Your task to perform on an android device: Search for the best running shoes on Nike. Image 0: 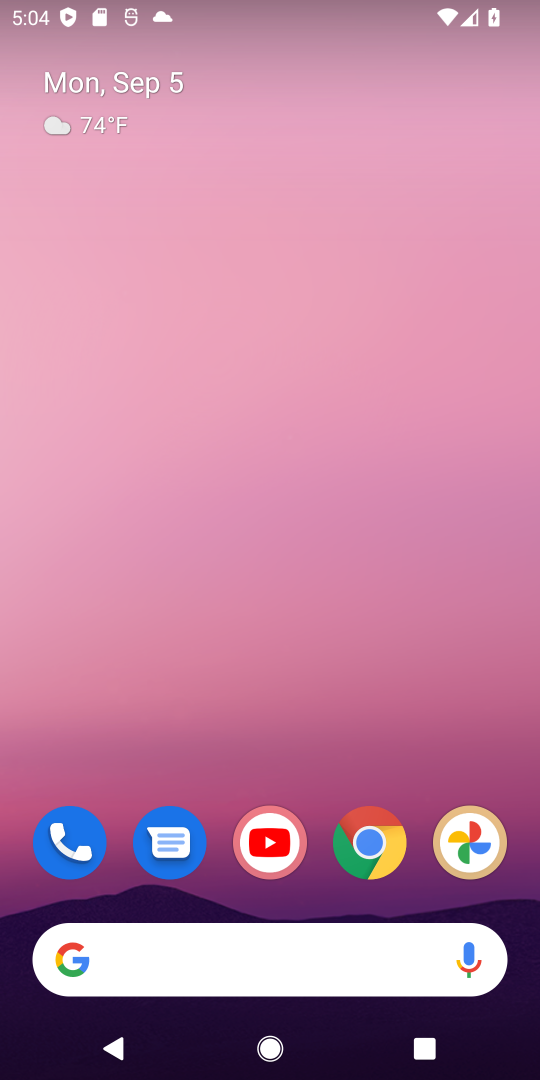
Step 0: click (372, 842)
Your task to perform on an android device: Search for the best running shoes on Nike. Image 1: 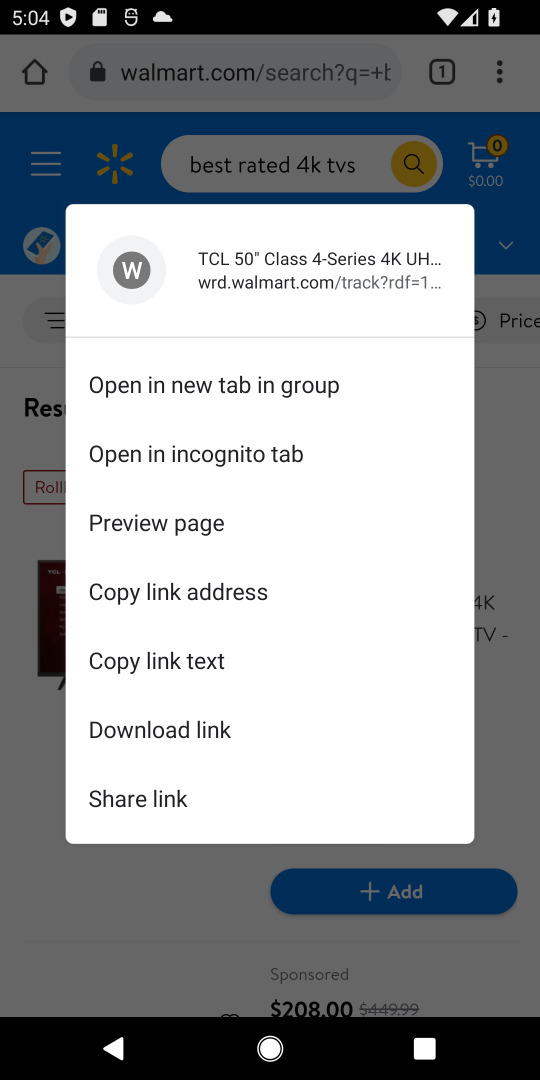
Step 1: click (315, 172)
Your task to perform on an android device: Search for the best running shoes on Nike. Image 2: 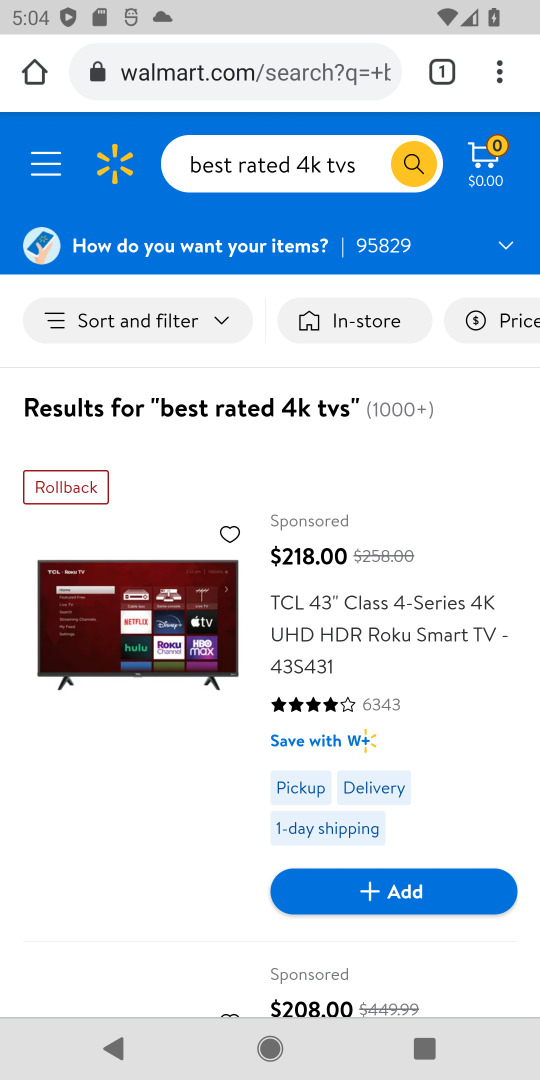
Step 2: click (332, 90)
Your task to perform on an android device: Search for the best running shoes on Nike. Image 3: 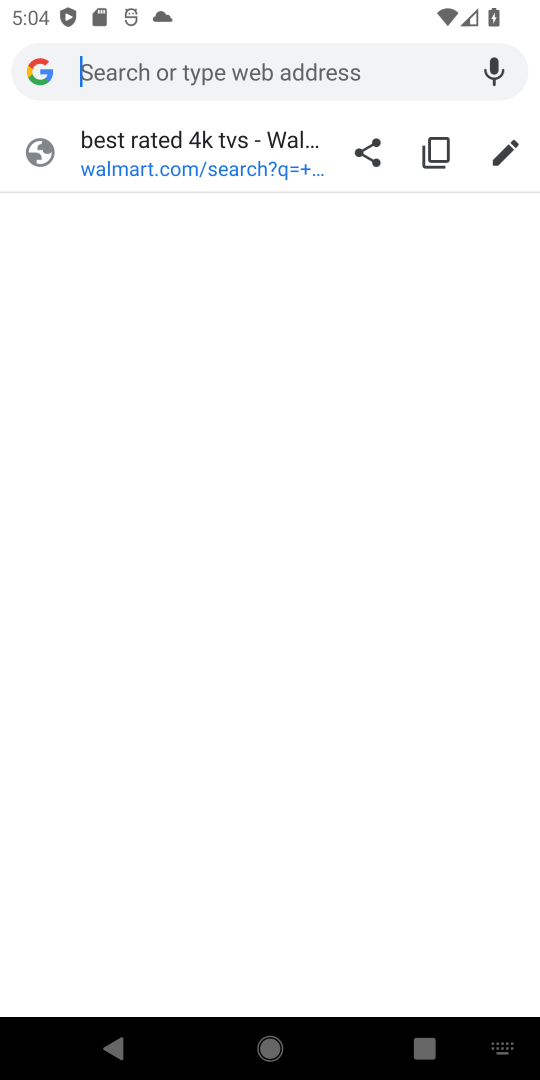
Step 3: type "Nike"
Your task to perform on an android device: Search for the best running shoes on Nike. Image 4: 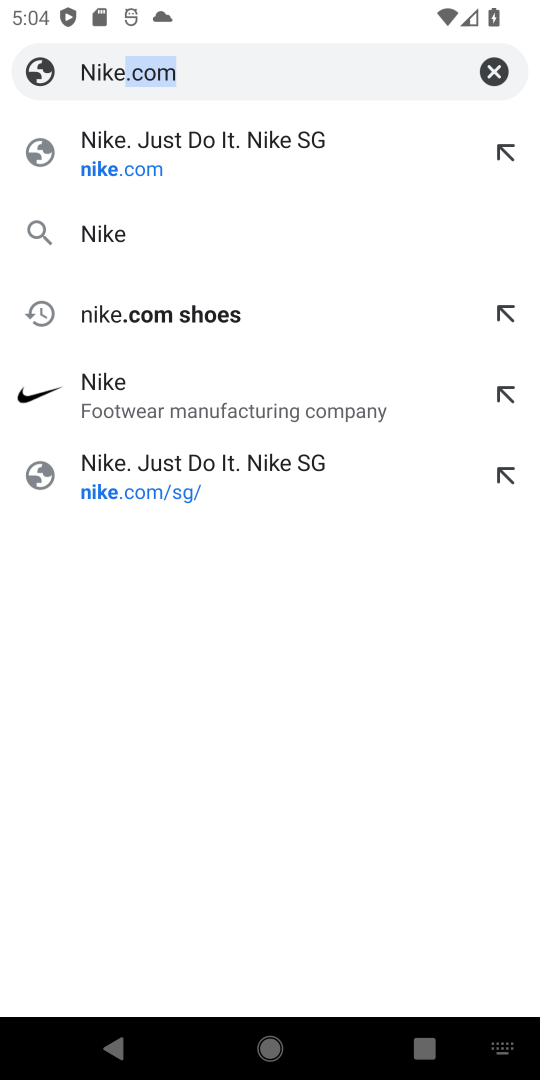
Step 4: click (117, 237)
Your task to perform on an android device: Search for the best running shoes on Nike. Image 5: 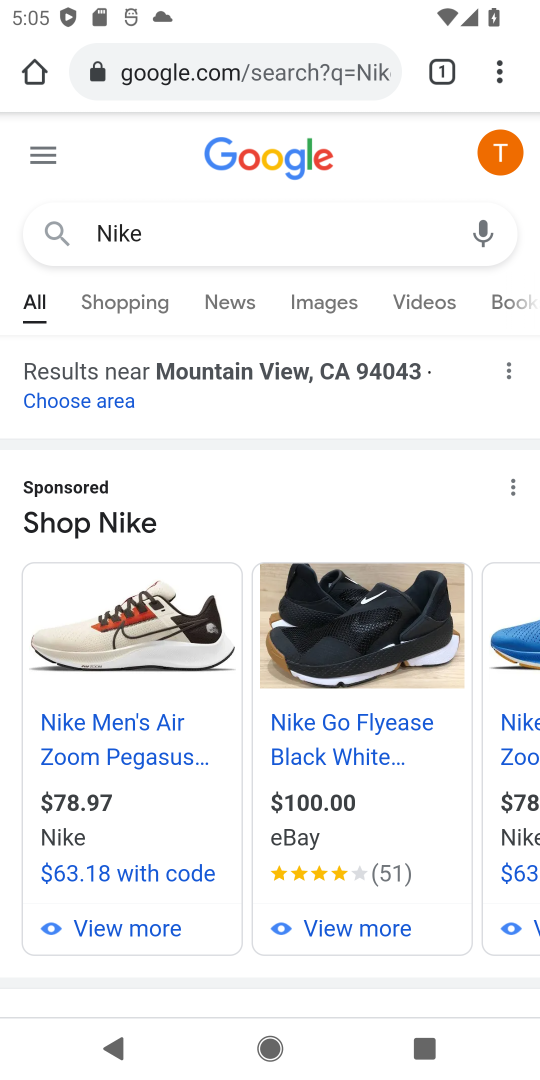
Step 5: drag from (304, 455) to (447, 194)
Your task to perform on an android device: Search for the best running shoes on Nike. Image 6: 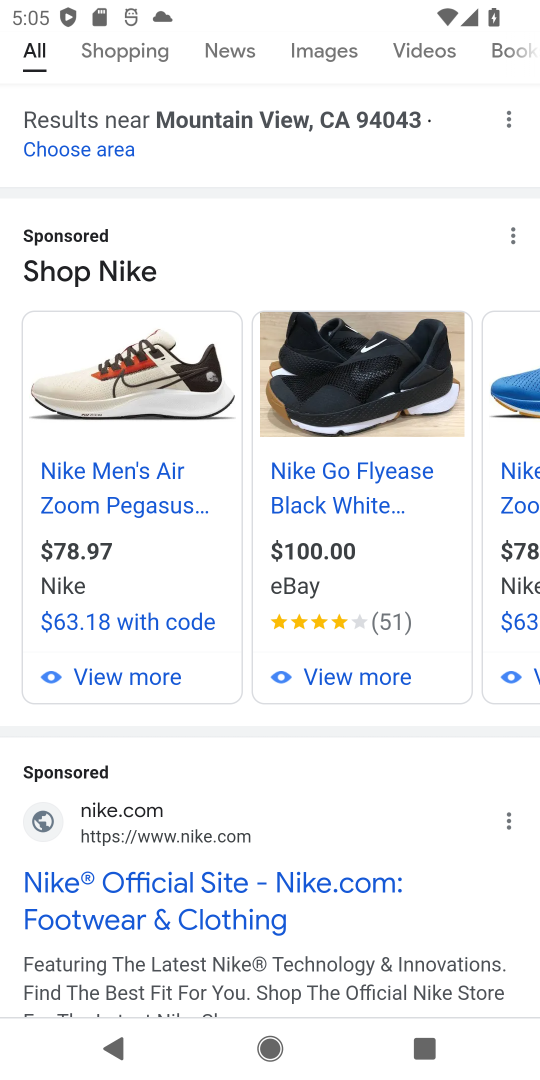
Step 6: drag from (242, 793) to (413, 214)
Your task to perform on an android device: Search for the best running shoes on Nike. Image 7: 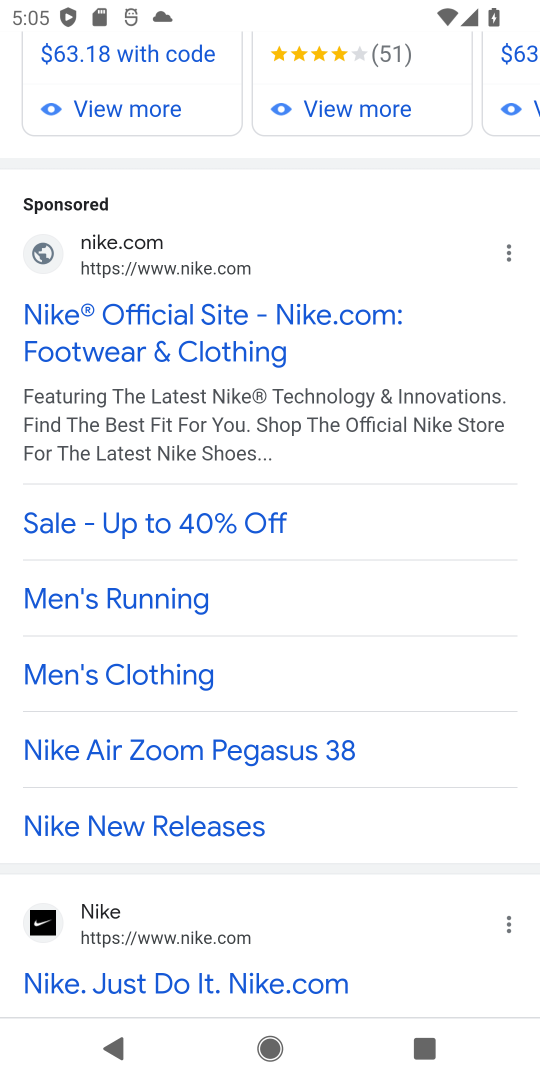
Step 7: drag from (246, 943) to (441, 551)
Your task to perform on an android device: Search for the best running shoes on Nike. Image 8: 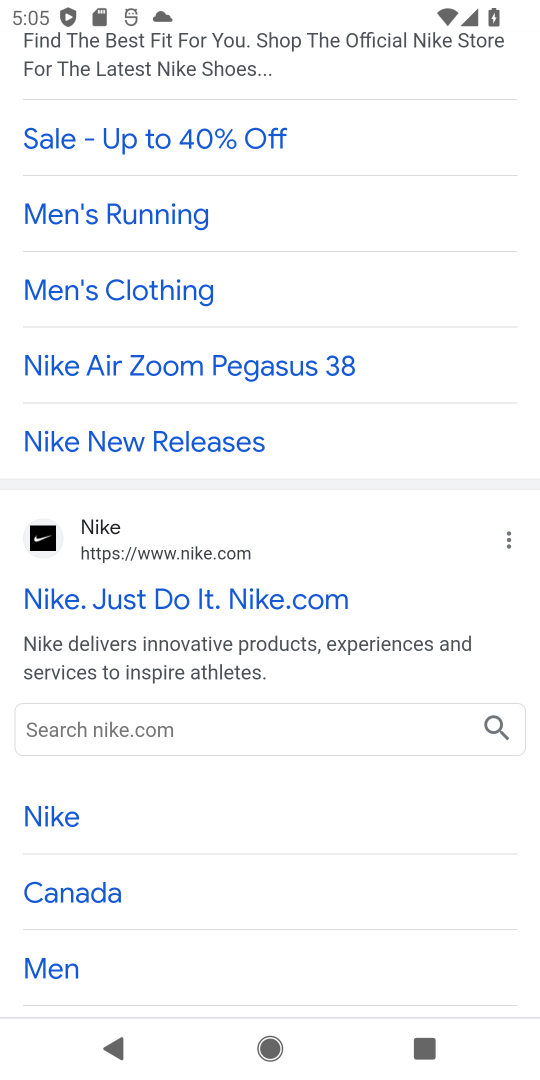
Step 8: click (154, 609)
Your task to perform on an android device: Search for the best running shoes on Nike. Image 9: 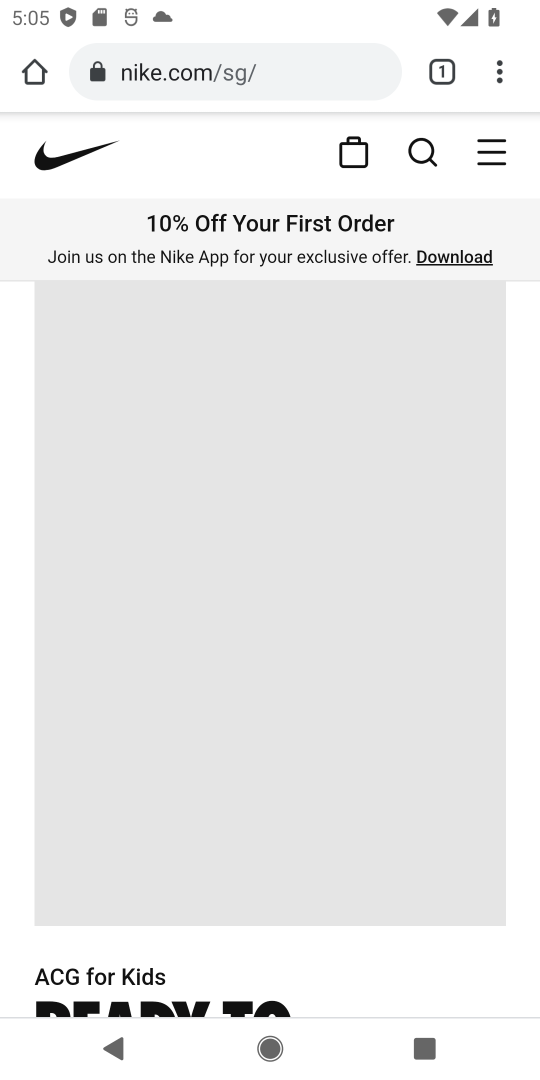
Step 9: click (422, 148)
Your task to perform on an android device: Search for the best running shoes on Nike. Image 10: 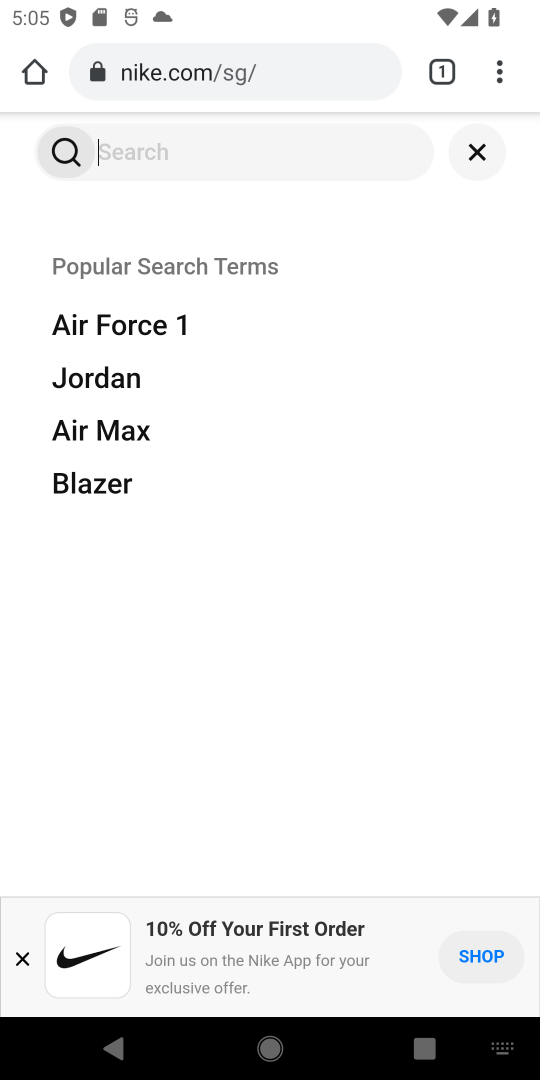
Step 10: type "best running shoes"
Your task to perform on an android device: Search for the best running shoes on Nike. Image 11: 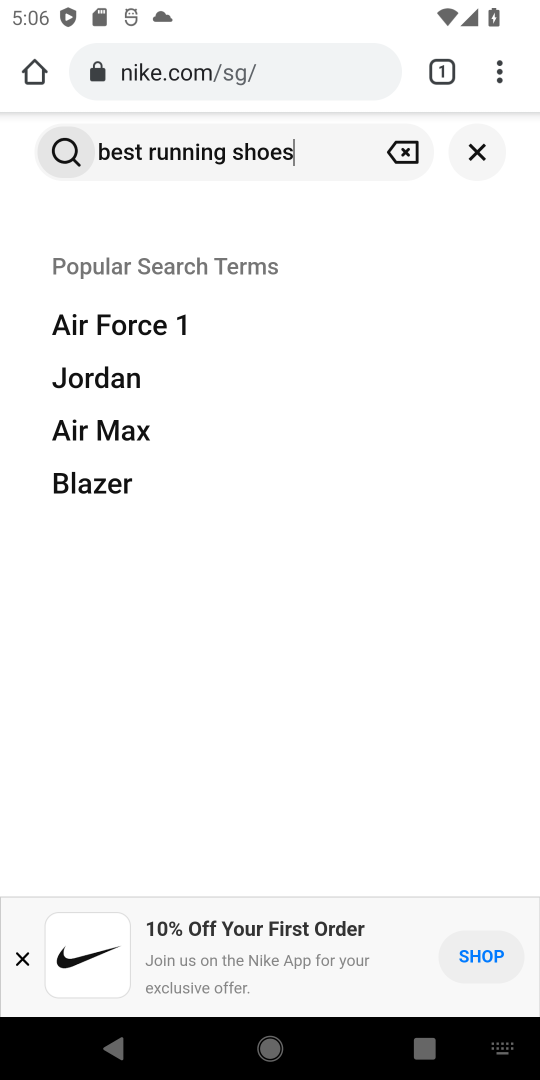
Step 11: click (65, 157)
Your task to perform on an android device: Search for the best running shoes on Nike. Image 12: 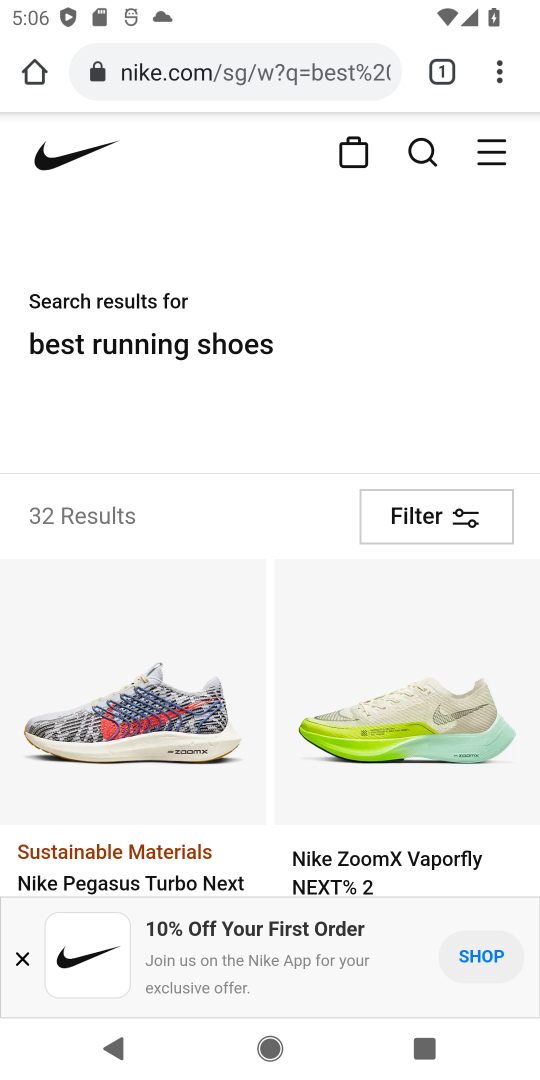
Step 12: task complete